Your task to perform on an android device: Go to Android settings Image 0: 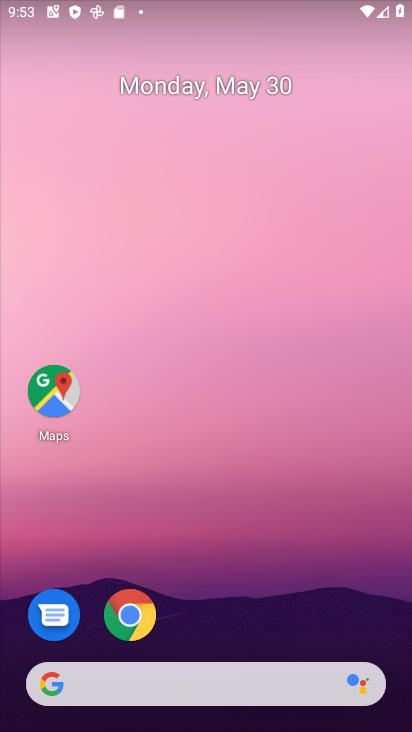
Step 0: drag from (375, 513) to (235, 11)
Your task to perform on an android device: Go to Android settings Image 1: 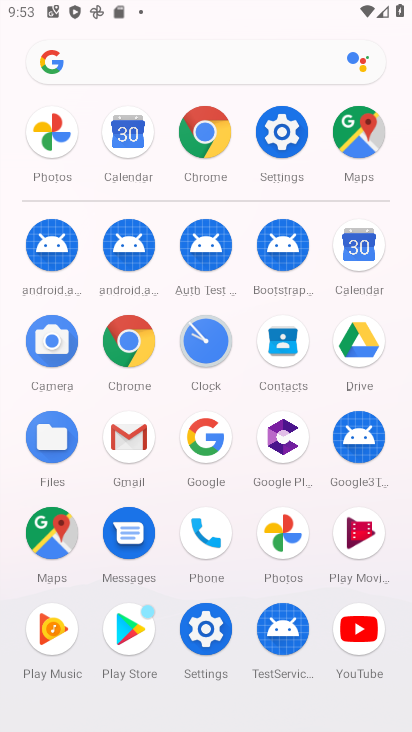
Step 1: click (215, 639)
Your task to perform on an android device: Go to Android settings Image 2: 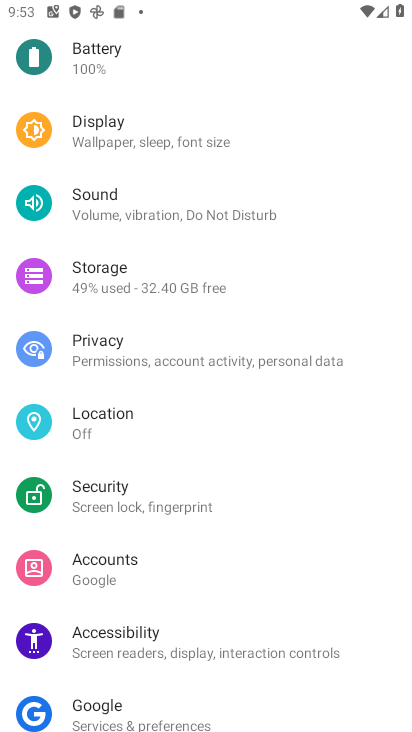
Step 2: drag from (204, 599) to (196, 1)
Your task to perform on an android device: Go to Android settings Image 3: 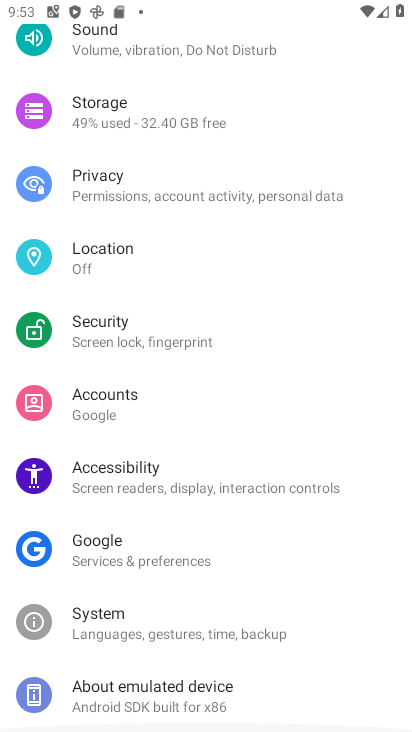
Step 3: drag from (166, 586) to (186, 200)
Your task to perform on an android device: Go to Android settings Image 4: 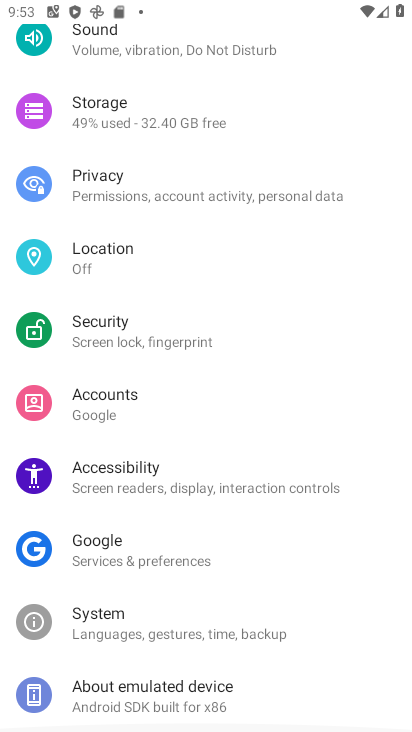
Step 4: click (144, 676)
Your task to perform on an android device: Go to Android settings Image 5: 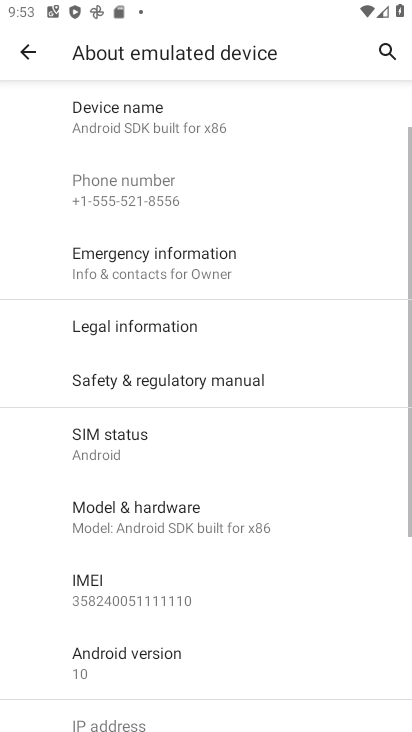
Step 5: click (191, 670)
Your task to perform on an android device: Go to Android settings Image 6: 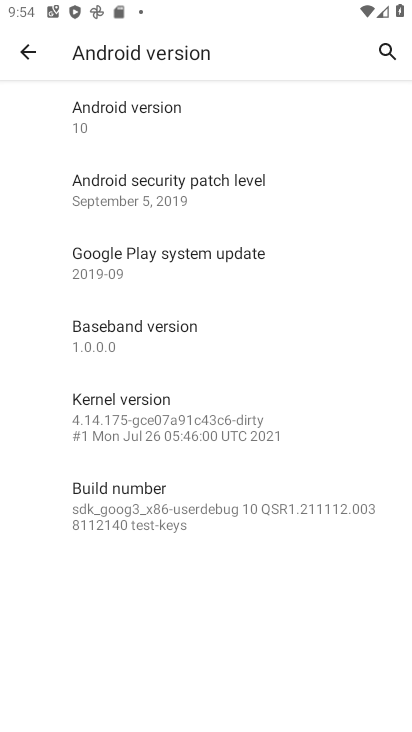
Step 6: task complete